Your task to perform on an android device: set default search engine in the chrome app Image 0: 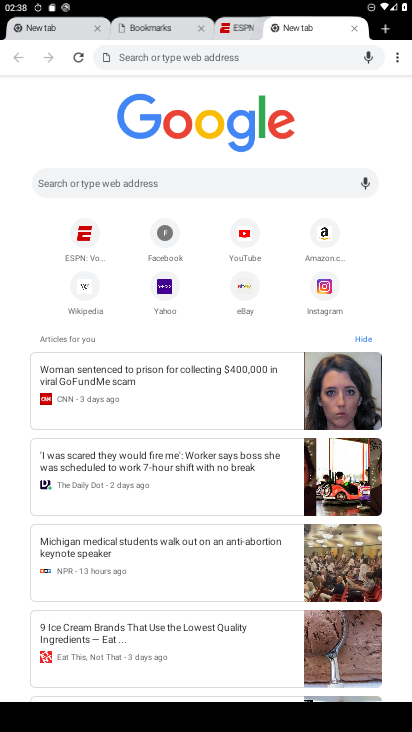
Step 0: click (398, 59)
Your task to perform on an android device: set default search engine in the chrome app Image 1: 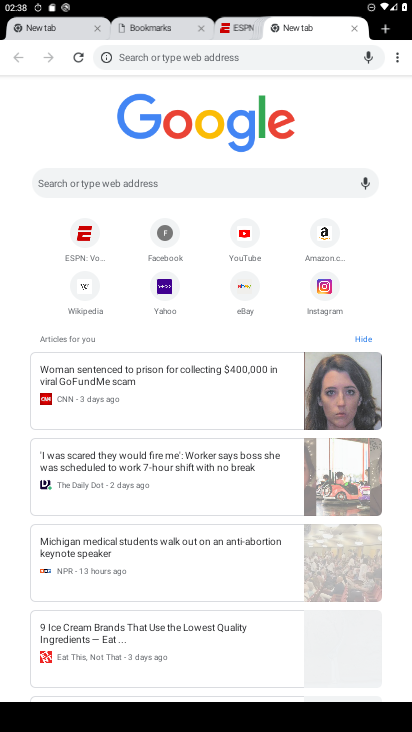
Step 1: click (392, 61)
Your task to perform on an android device: set default search engine in the chrome app Image 2: 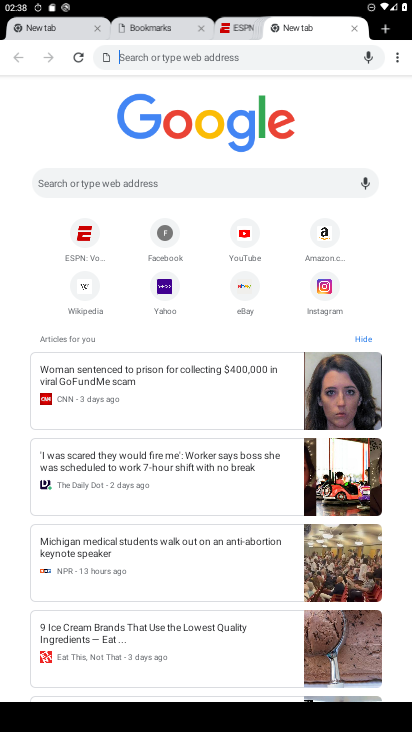
Step 2: click (393, 64)
Your task to perform on an android device: set default search engine in the chrome app Image 3: 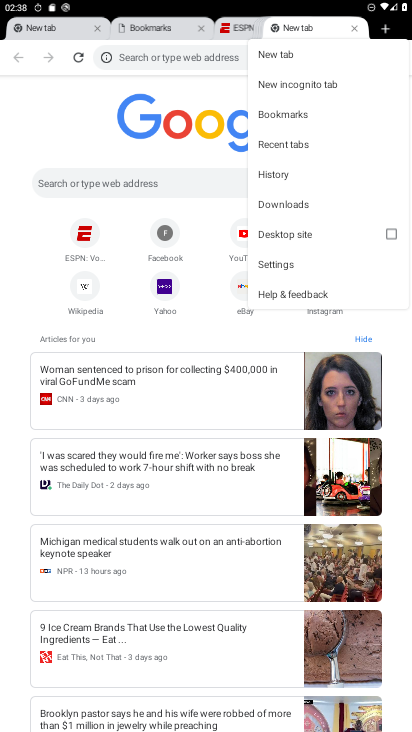
Step 3: click (297, 265)
Your task to perform on an android device: set default search engine in the chrome app Image 4: 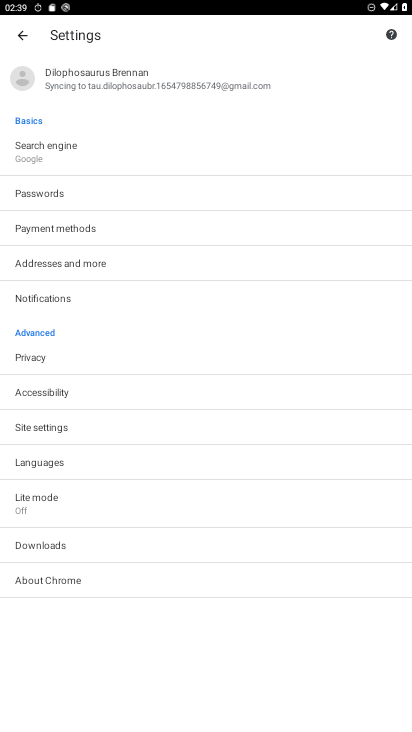
Step 4: click (65, 166)
Your task to perform on an android device: set default search engine in the chrome app Image 5: 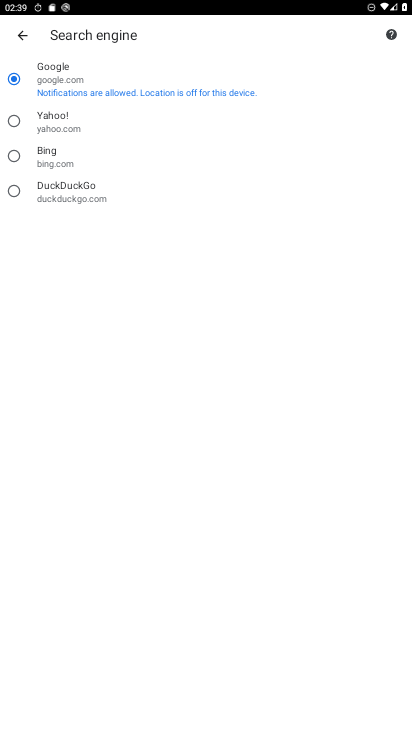
Step 5: task complete